Your task to perform on an android device: Open notification settings Image 0: 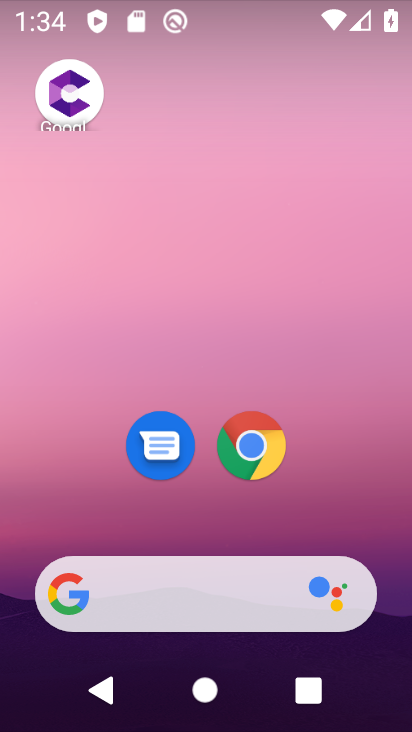
Step 0: drag from (346, 659) to (302, 70)
Your task to perform on an android device: Open notification settings Image 1: 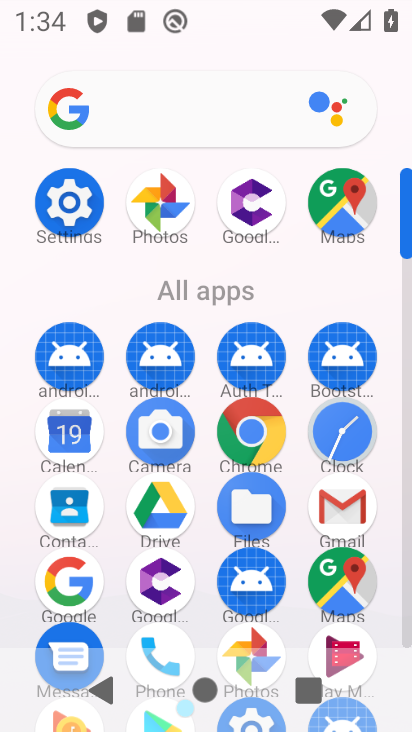
Step 1: click (77, 198)
Your task to perform on an android device: Open notification settings Image 2: 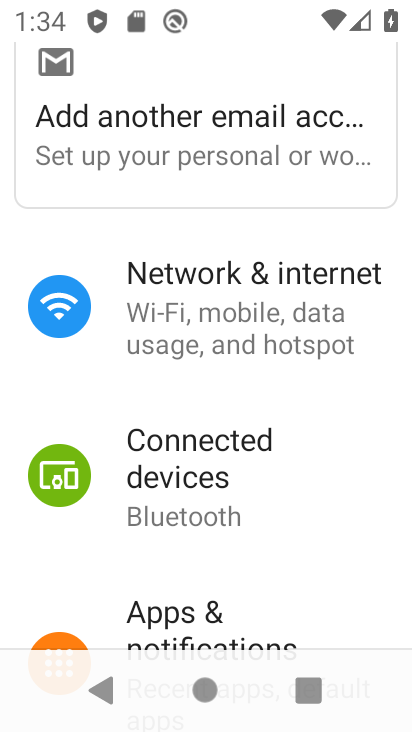
Step 2: click (290, 624)
Your task to perform on an android device: Open notification settings Image 3: 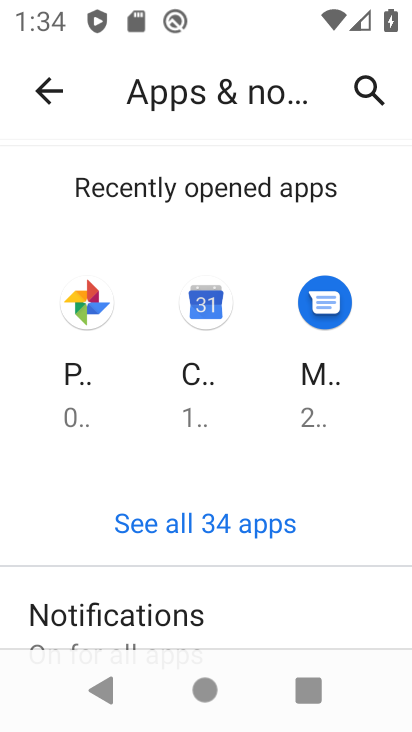
Step 3: drag from (350, 633) to (411, 185)
Your task to perform on an android device: Open notification settings Image 4: 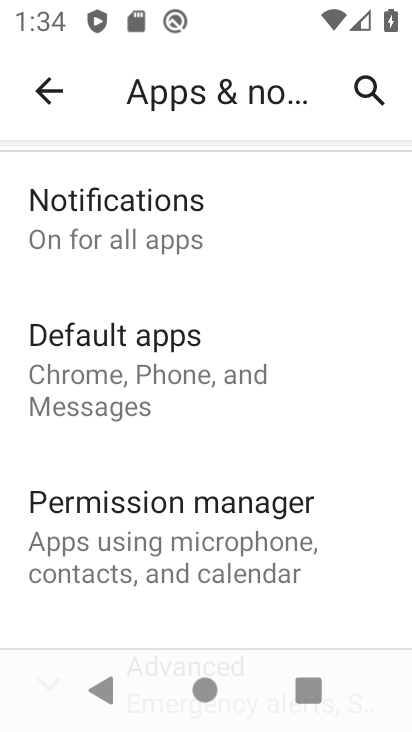
Step 4: click (213, 226)
Your task to perform on an android device: Open notification settings Image 5: 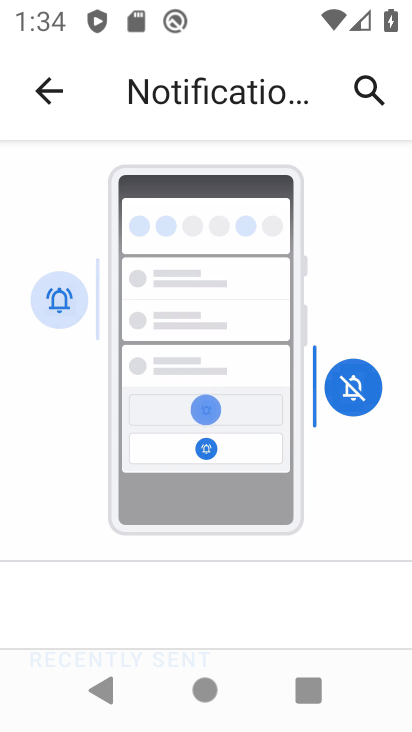
Step 5: task complete